Your task to perform on an android device: Clear the shopping cart on target.com. Search for apple airpods pro on target.com, select the first entry, add it to the cart, then select checkout. Image 0: 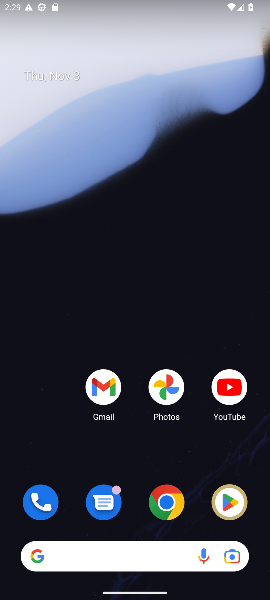
Step 0: drag from (152, 515) to (138, 36)
Your task to perform on an android device: Clear the shopping cart on target.com. Search for apple airpods pro on target.com, select the first entry, add it to the cart, then select checkout. Image 1: 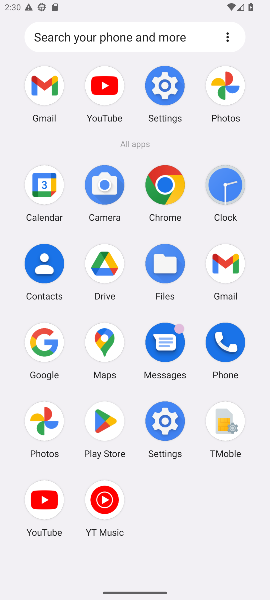
Step 1: click (47, 342)
Your task to perform on an android device: Clear the shopping cart on target.com. Search for apple airpods pro on target.com, select the first entry, add it to the cart, then select checkout. Image 2: 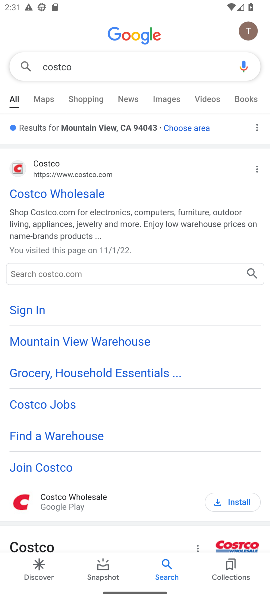
Step 2: click (191, 65)
Your task to perform on an android device: Clear the shopping cart on target.com. Search for apple airpods pro on target.com, select the first entry, add it to the cart, then select checkout. Image 3: 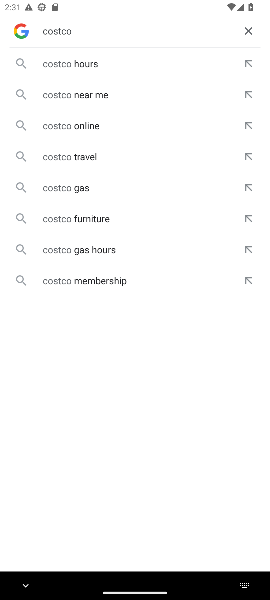
Step 3: click (249, 32)
Your task to perform on an android device: Clear the shopping cart on target.com. Search for apple airpods pro on target.com, select the first entry, add it to the cart, then select checkout. Image 4: 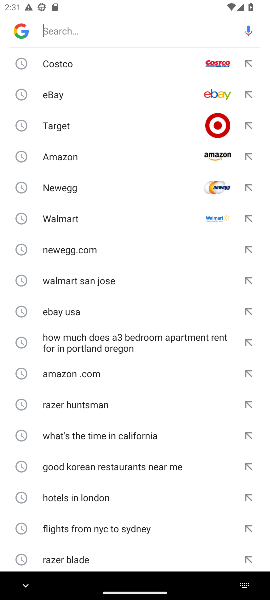
Step 4: type "target.com"
Your task to perform on an android device: Clear the shopping cart on target.com. Search for apple airpods pro on target.com, select the first entry, add it to the cart, then select checkout. Image 5: 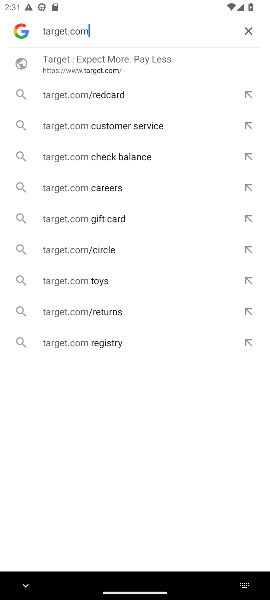
Step 5: click (118, 67)
Your task to perform on an android device: Clear the shopping cart on target.com. Search for apple airpods pro on target.com, select the first entry, add it to the cart, then select checkout. Image 6: 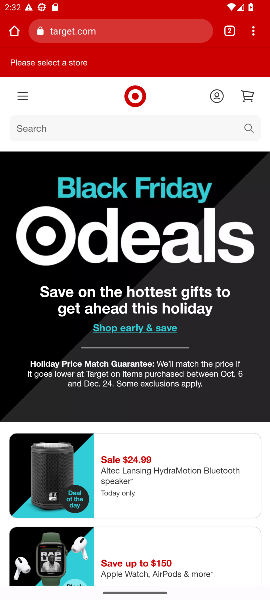
Step 6: click (122, 131)
Your task to perform on an android device: Clear the shopping cart on target.com. Search for apple airpods pro on target.com, select the first entry, add it to the cart, then select checkout. Image 7: 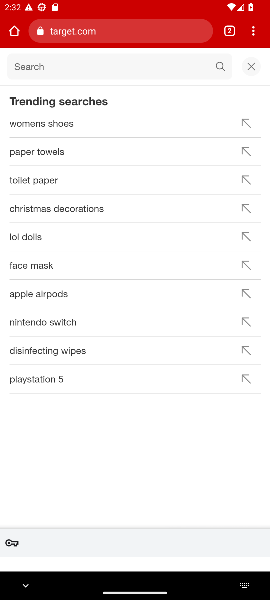
Step 7: type "apple airpods pro"
Your task to perform on an android device: Clear the shopping cart on target.com. Search for apple airpods pro on target.com, select the first entry, add it to the cart, then select checkout. Image 8: 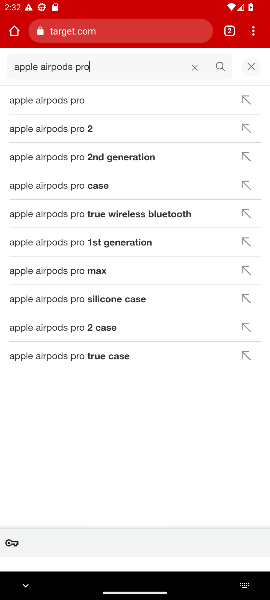
Step 8: click (58, 103)
Your task to perform on an android device: Clear the shopping cart on target.com. Search for apple airpods pro on target.com, select the first entry, add it to the cart, then select checkout. Image 9: 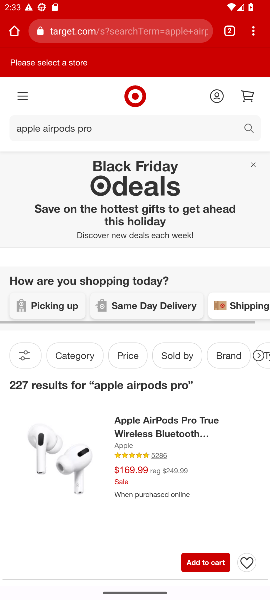
Step 9: click (103, 434)
Your task to perform on an android device: Clear the shopping cart on target.com. Search for apple airpods pro on target.com, select the first entry, add it to the cart, then select checkout. Image 10: 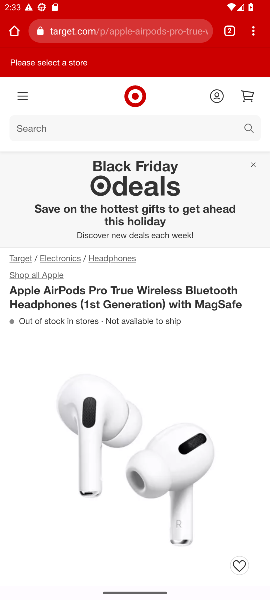
Step 10: drag from (200, 459) to (201, 253)
Your task to perform on an android device: Clear the shopping cart on target.com. Search for apple airpods pro on target.com, select the first entry, add it to the cart, then select checkout. Image 11: 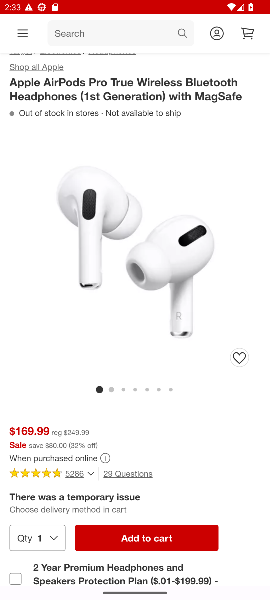
Step 11: click (160, 533)
Your task to perform on an android device: Clear the shopping cart on target.com. Search for apple airpods pro on target.com, select the first entry, add it to the cart, then select checkout. Image 12: 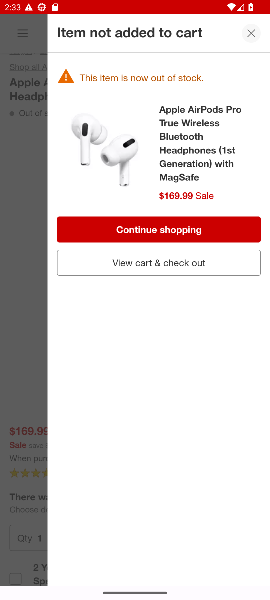
Step 12: click (199, 260)
Your task to perform on an android device: Clear the shopping cart on target.com. Search for apple airpods pro on target.com, select the first entry, add it to the cart, then select checkout. Image 13: 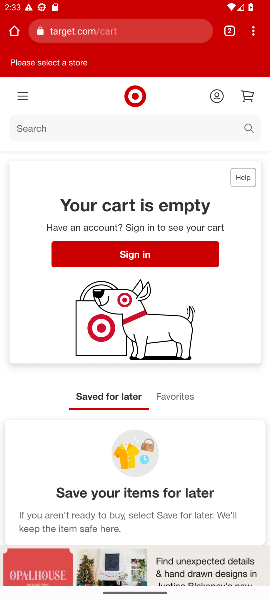
Step 13: task complete